Your task to perform on an android device: Open Google Chrome and open the bookmarks view Image 0: 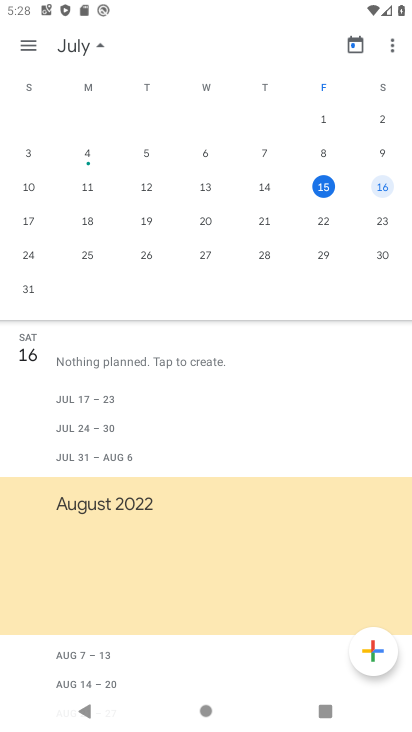
Step 0: press home button
Your task to perform on an android device: Open Google Chrome and open the bookmarks view Image 1: 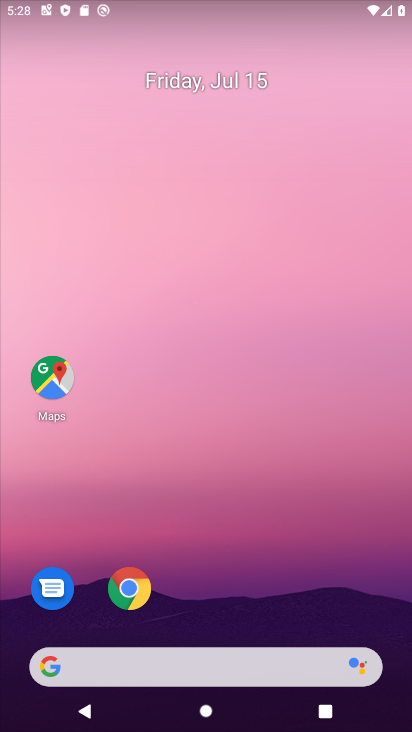
Step 1: drag from (300, 646) to (314, 243)
Your task to perform on an android device: Open Google Chrome and open the bookmarks view Image 2: 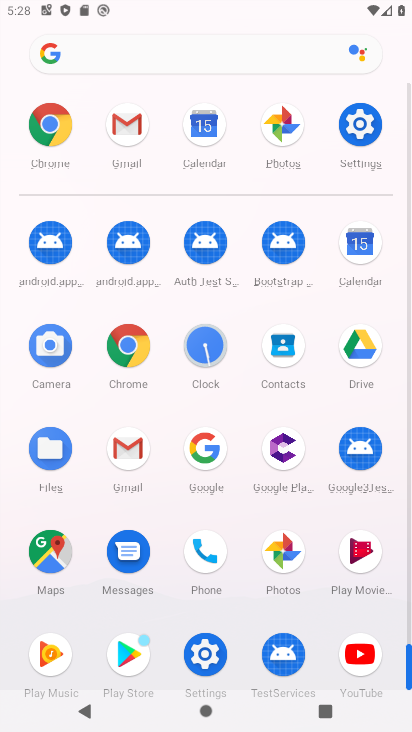
Step 2: click (125, 366)
Your task to perform on an android device: Open Google Chrome and open the bookmarks view Image 3: 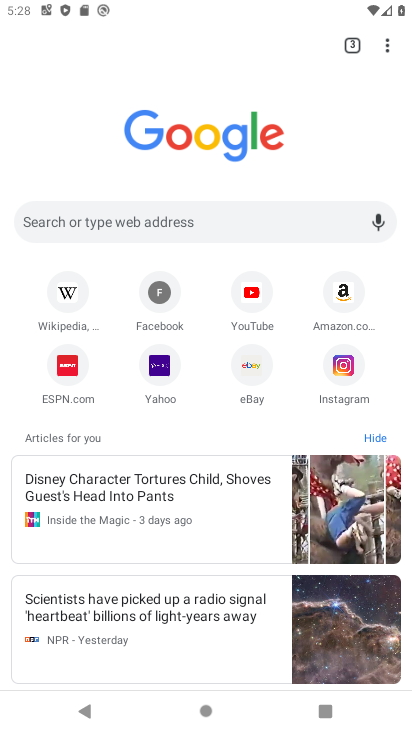
Step 3: click (385, 38)
Your task to perform on an android device: Open Google Chrome and open the bookmarks view Image 4: 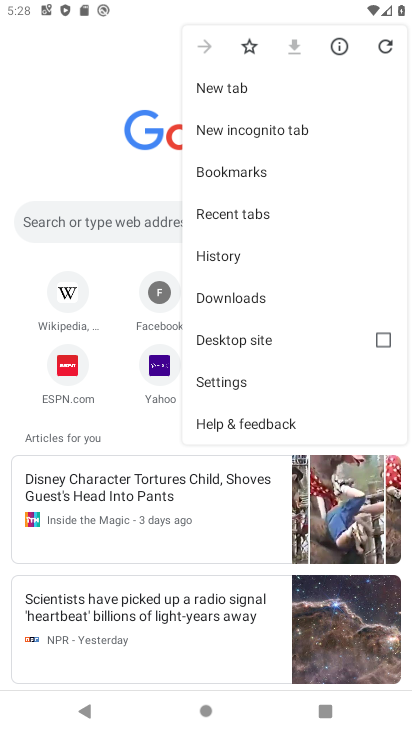
Step 4: click (270, 167)
Your task to perform on an android device: Open Google Chrome and open the bookmarks view Image 5: 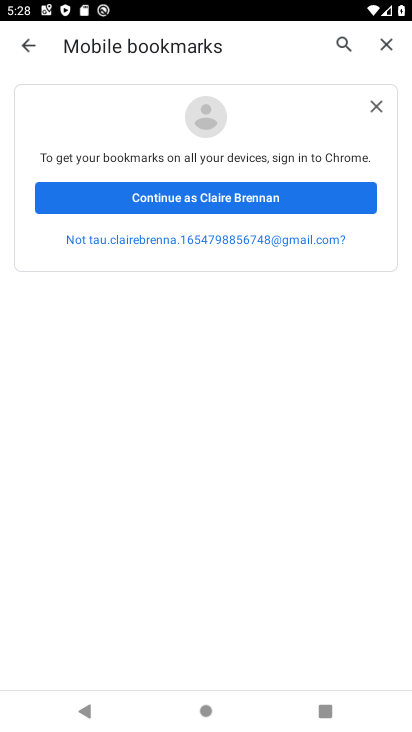
Step 5: task complete